Your task to perform on an android device: Clear the shopping cart on costco.com. Image 0: 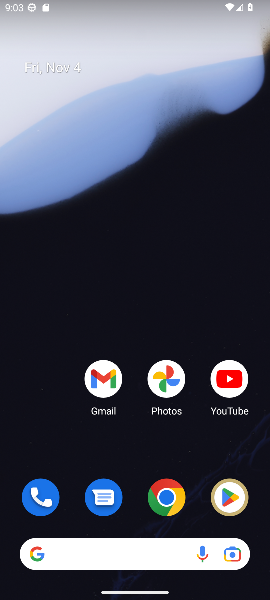
Step 0: click (172, 501)
Your task to perform on an android device: Clear the shopping cart on costco.com. Image 1: 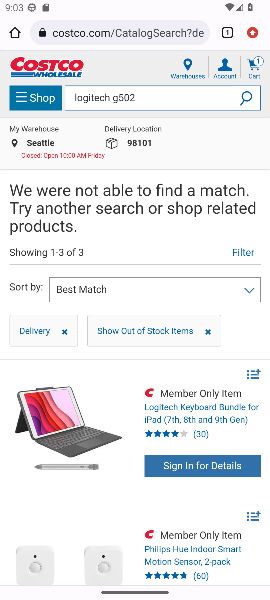
Step 1: click (250, 68)
Your task to perform on an android device: Clear the shopping cart on costco.com. Image 2: 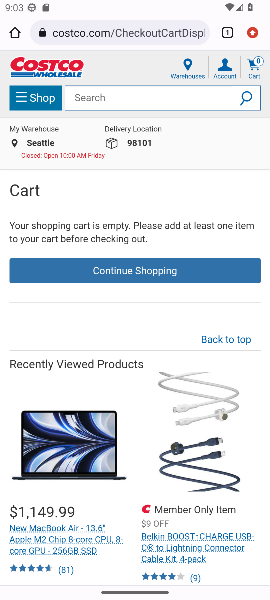
Step 2: task complete